Your task to perform on an android device: turn on javascript in the chrome app Image 0: 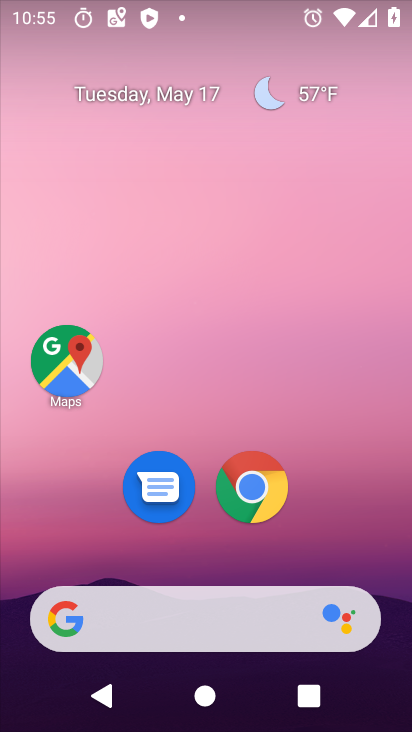
Step 0: click (252, 483)
Your task to perform on an android device: turn on javascript in the chrome app Image 1: 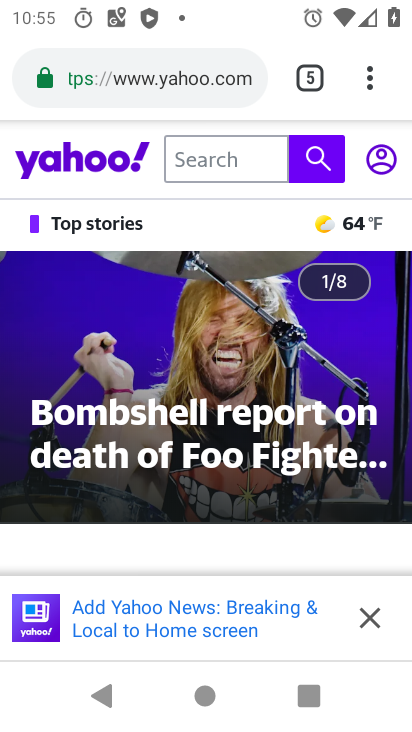
Step 1: click (369, 85)
Your task to perform on an android device: turn on javascript in the chrome app Image 2: 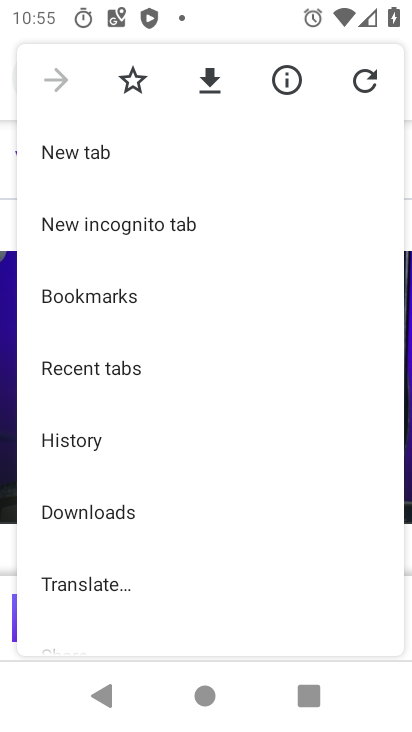
Step 2: drag from (111, 604) to (108, 277)
Your task to perform on an android device: turn on javascript in the chrome app Image 3: 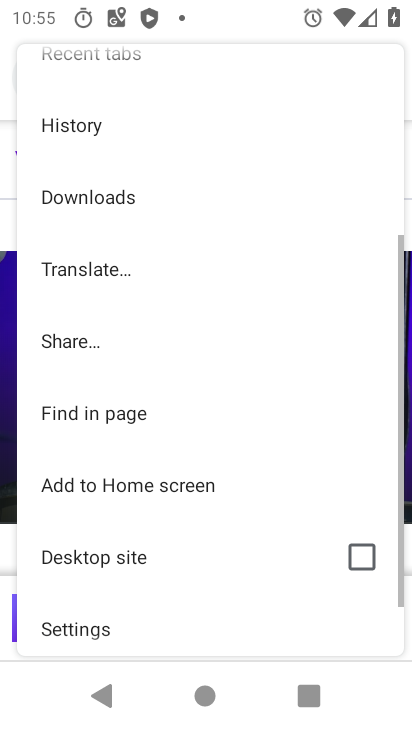
Step 3: click (82, 629)
Your task to perform on an android device: turn on javascript in the chrome app Image 4: 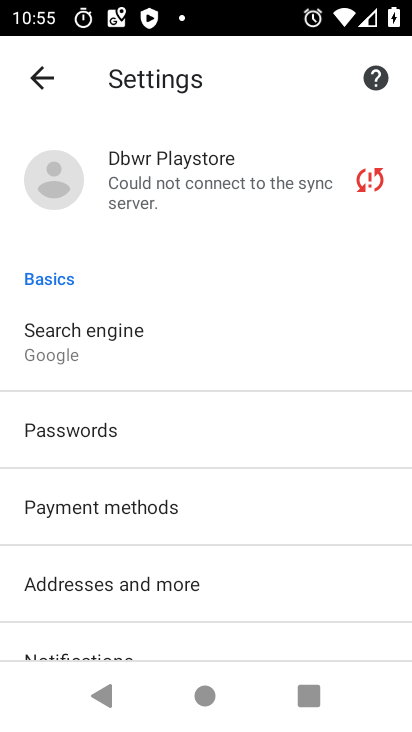
Step 4: drag from (162, 622) to (177, 290)
Your task to perform on an android device: turn on javascript in the chrome app Image 5: 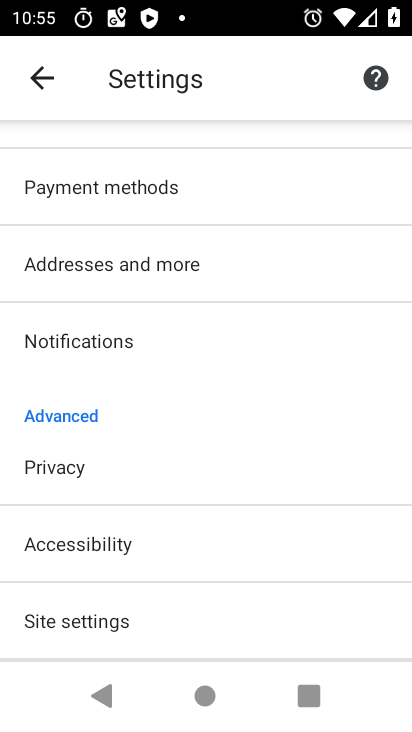
Step 5: drag from (88, 623) to (95, 368)
Your task to perform on an android device: turn on javascript in the chrome app Image 6: 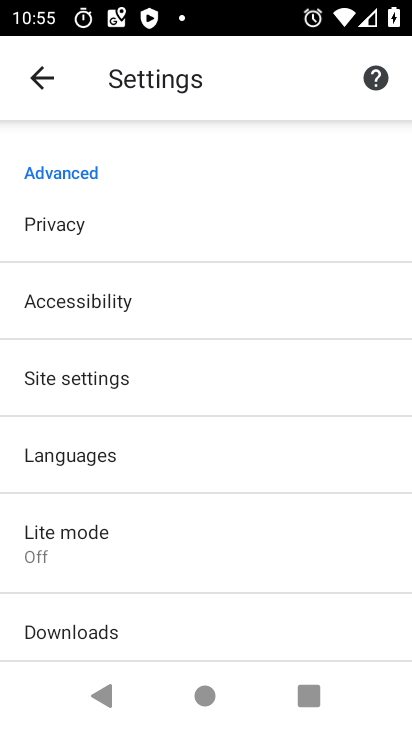
Step 6: click (90, 384)
Your task to perform on an android device: turn on javascript in the chrome app Image 7: 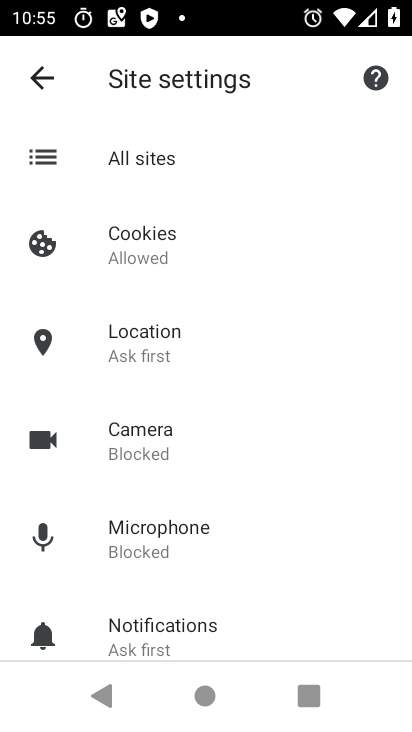
Step 7: drag from (158, 638) to (170, 232)
Your task to perform on an android device: turn on javascript in the chrome app Image 8: 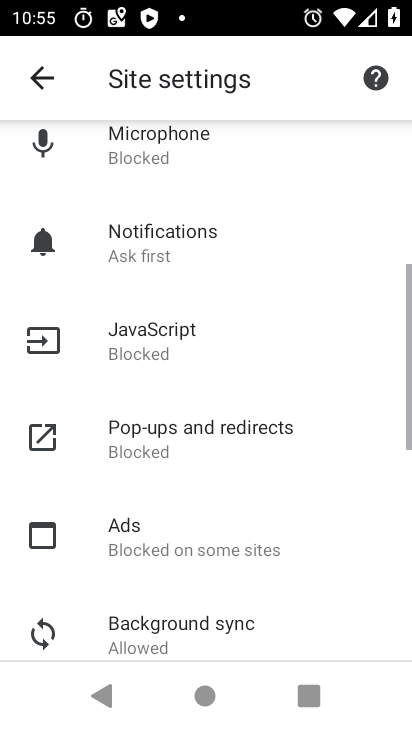
Step 8: click (148, 331)
Your task to perform on an android device: turn on javascript in the chrome app Image 9: 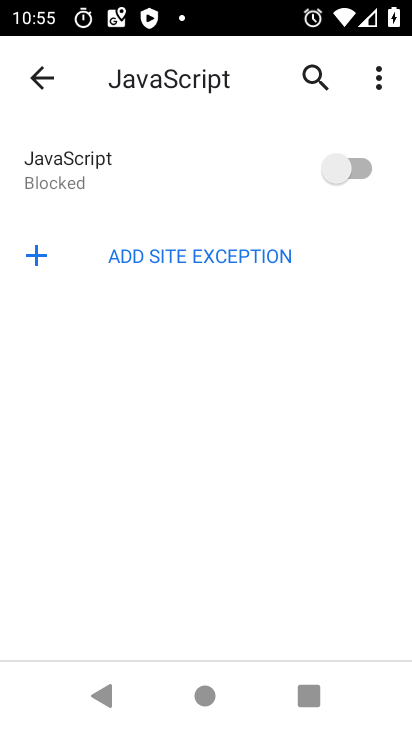
Step 9: click (361, 168)
Your task to perform on an android device: turn on javascript in the chrome app Image 10: 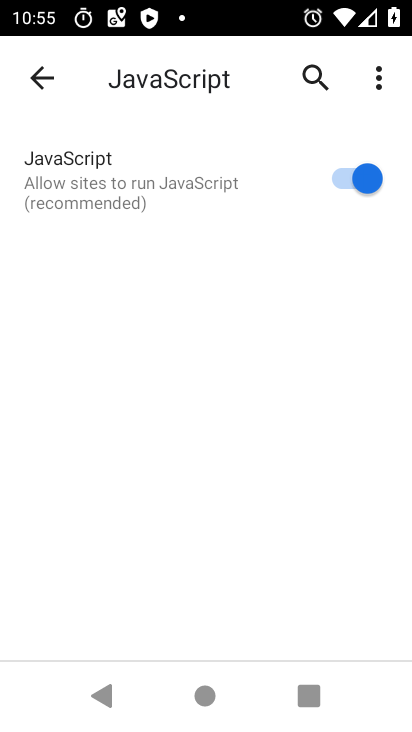
Step 10: task complete